Your task to perform on an android device: Go to Maps Image 0: 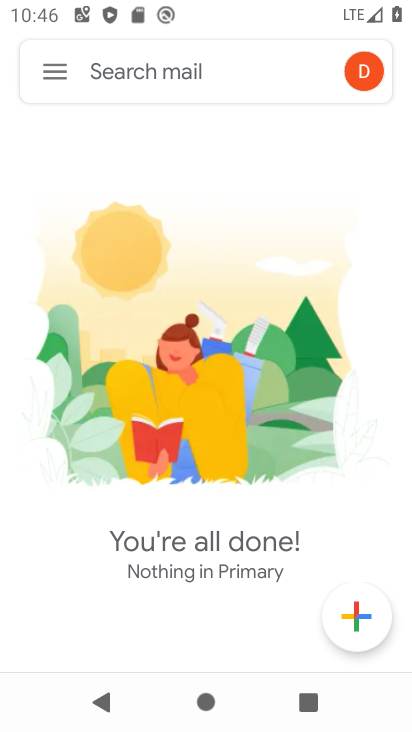
Step 0: press home button
Your task to perform on an android device: Go to Maps Image 1: 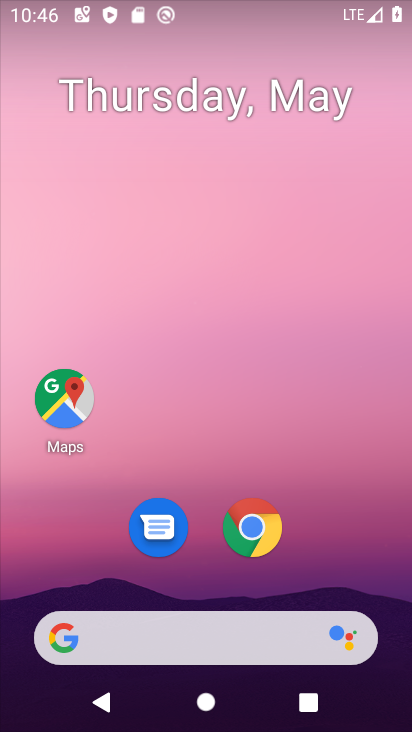
Step 1: click (61, 394)
Your task to perform on an android device: Go to Maps Image 2: 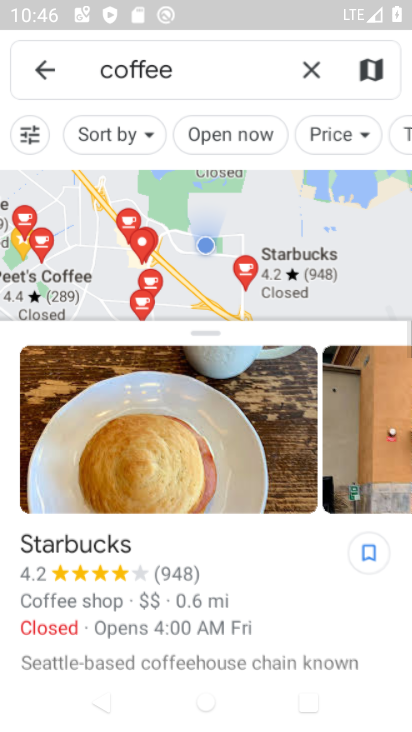
Step 2: task complete